Your task to perform on an android device: Do I have any events today? Image 0: 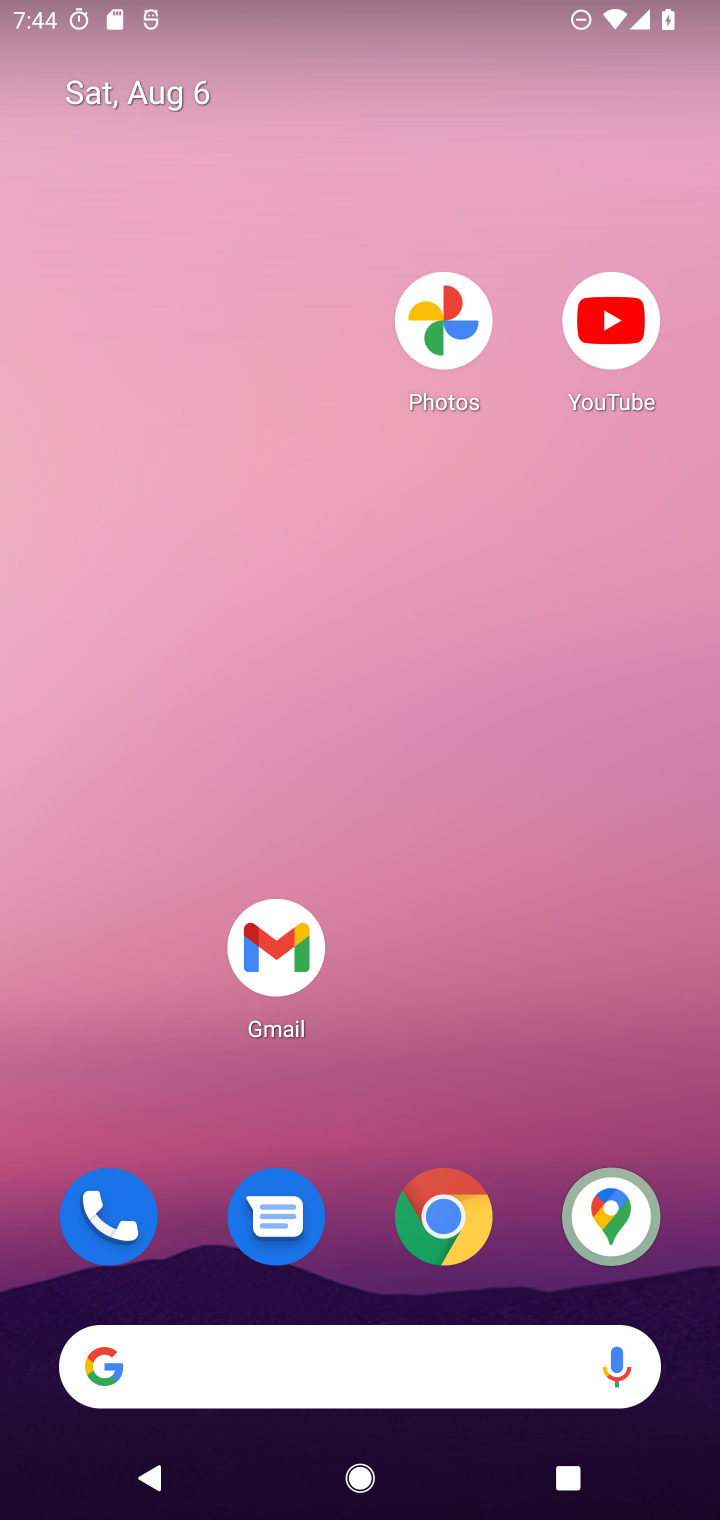
Step 0: drag from (587, 696) to (672, 183)
Your task to perform on an android device: Do I have any events today? Image 1: 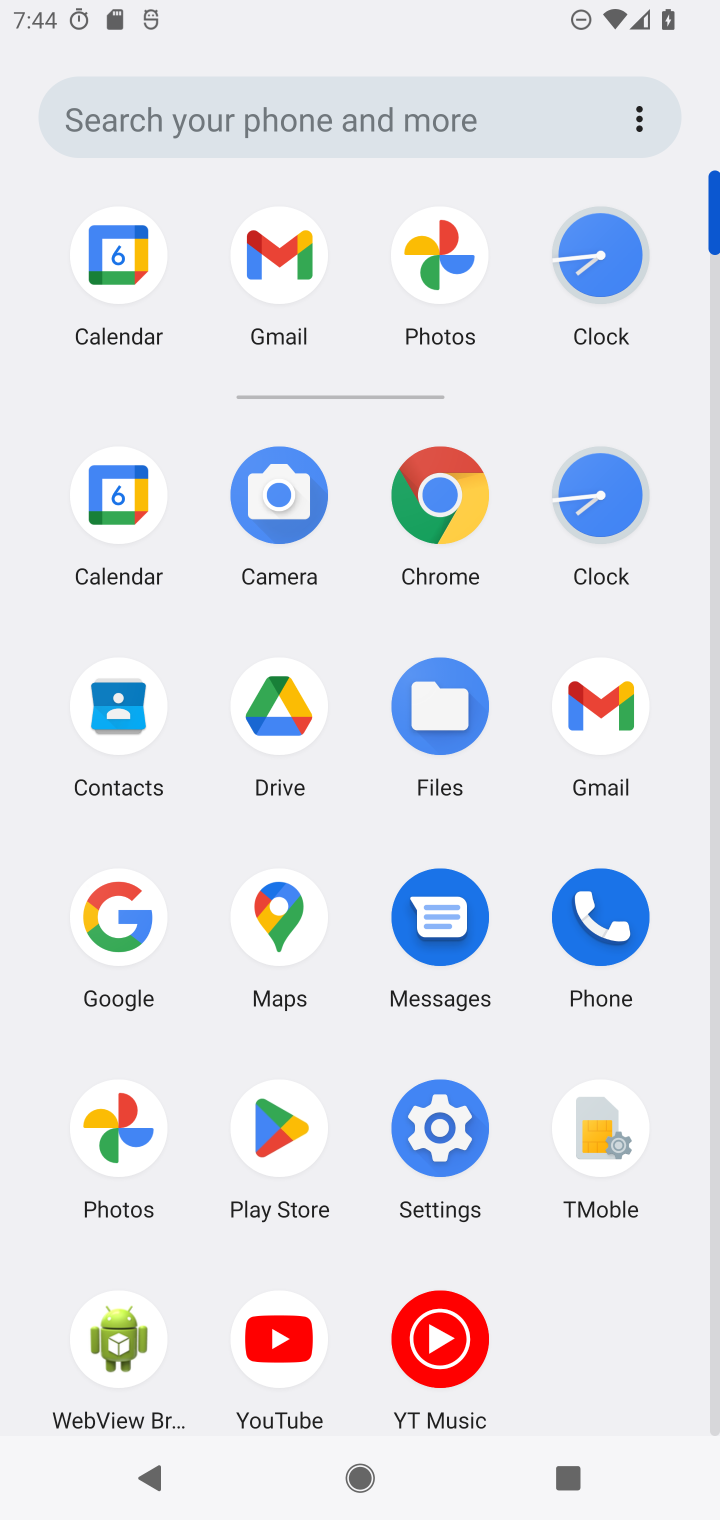
Step 1: click (138, 472)
Your task to perform on an android device: Do I have any events today? Image 2: 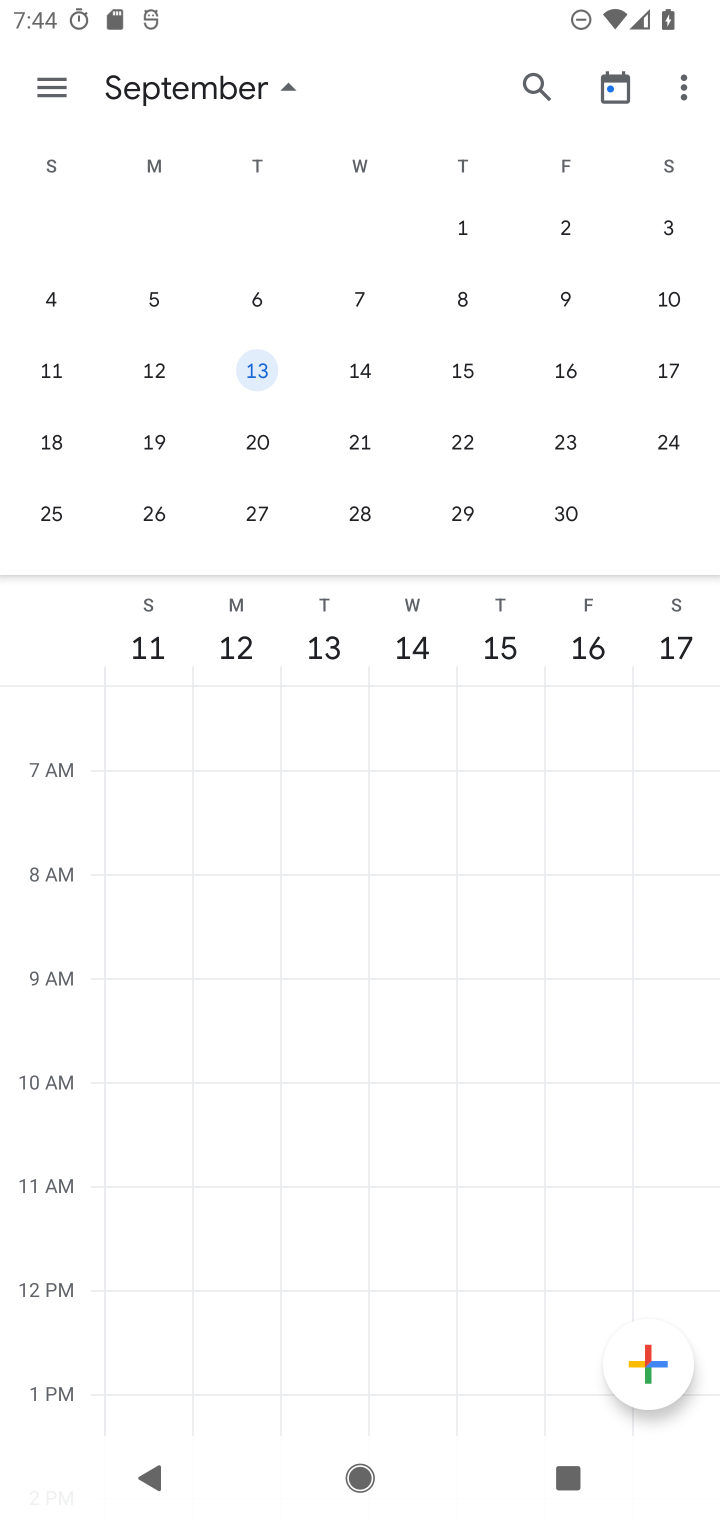
Step 2: drag from (102, 386) to (642, 388)
Your task to perform on an android device: Do I have any events today? Image 3: 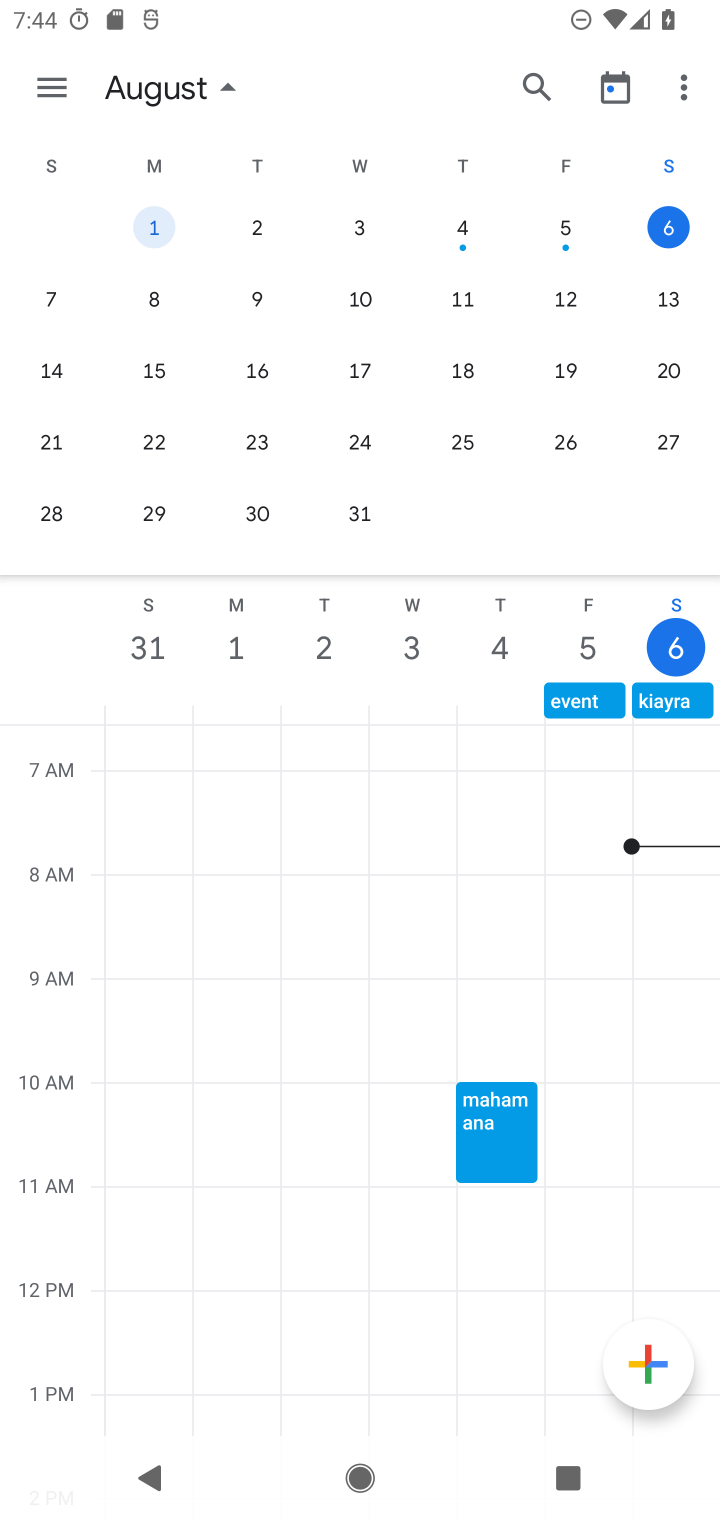
Step 3: click (652, 219)
Your task to perform on an android device: Do I have any events today? Image 4: 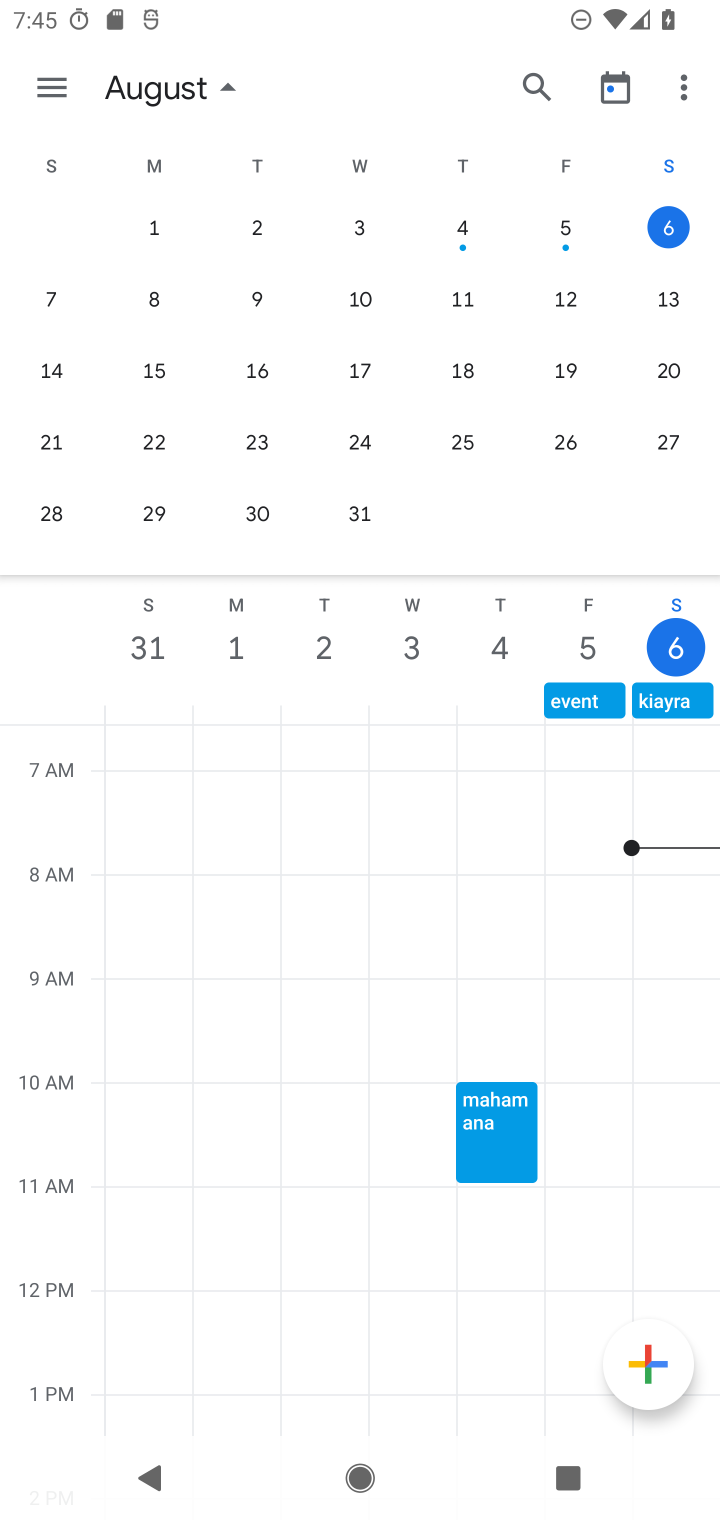
Step 4: click (674, 224)
Your task to perform on an android device: Do I have any events today? Image 5: 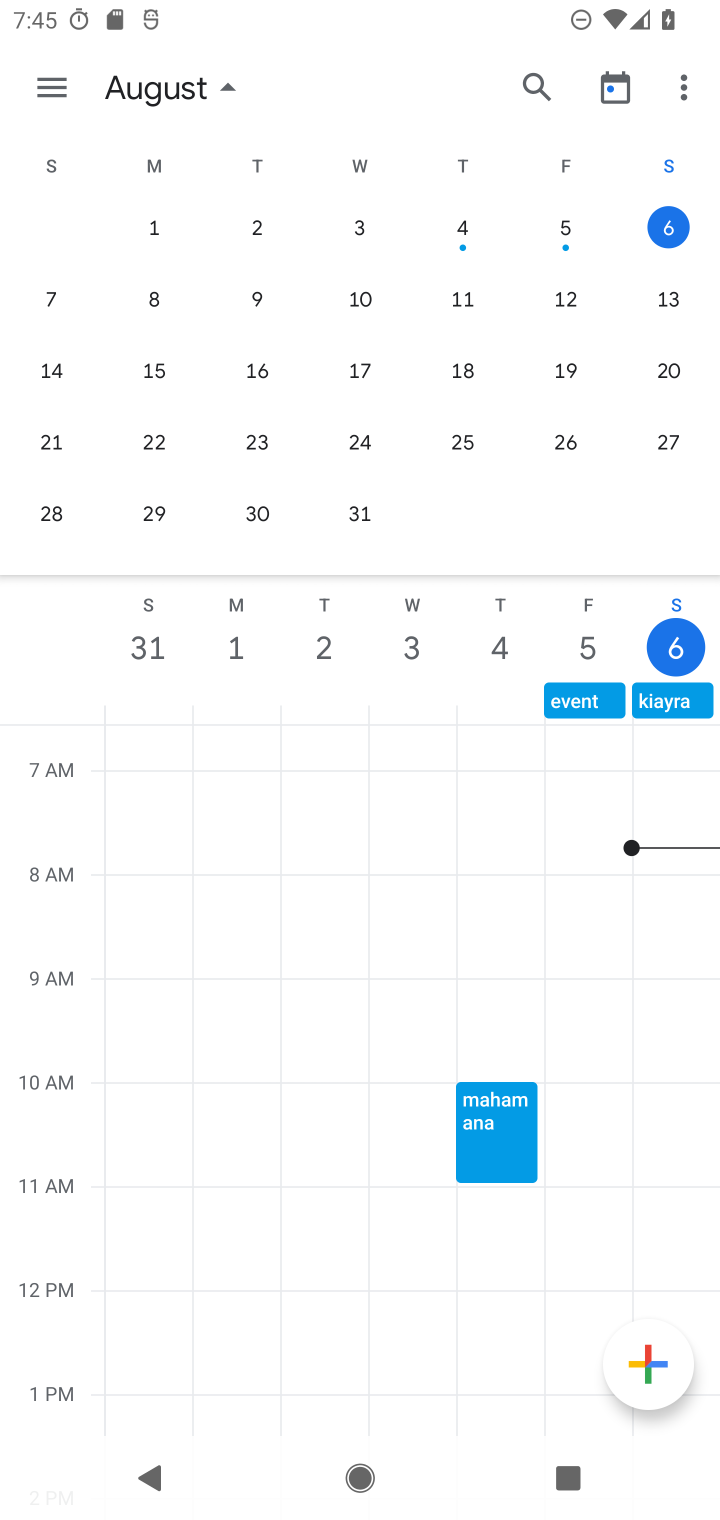
Step 5: click (663, 642)
Your task to perform on an android device: Do I have any events today? Image 6: 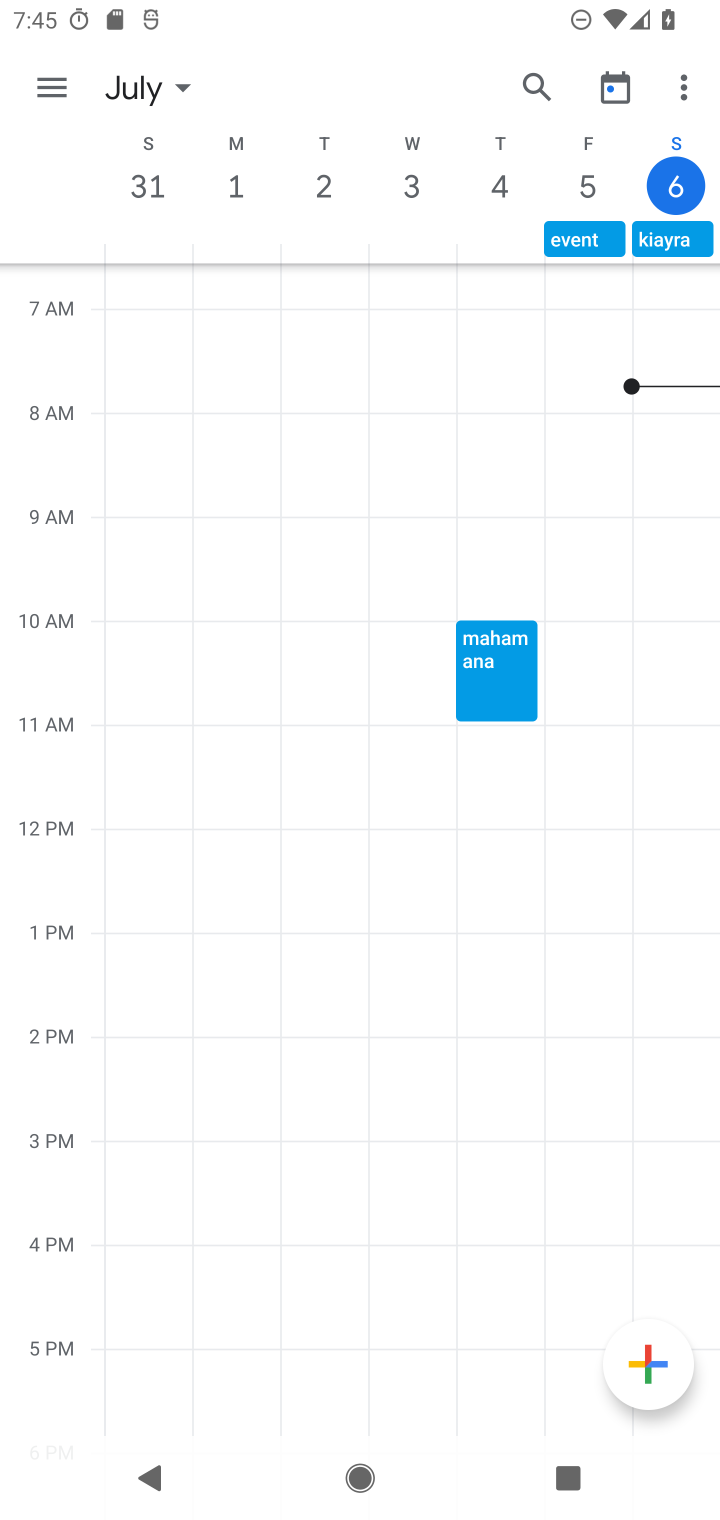
Step 6: click (665, 642)
Your task to perform on an android device: Do I have any events today? Image 7: 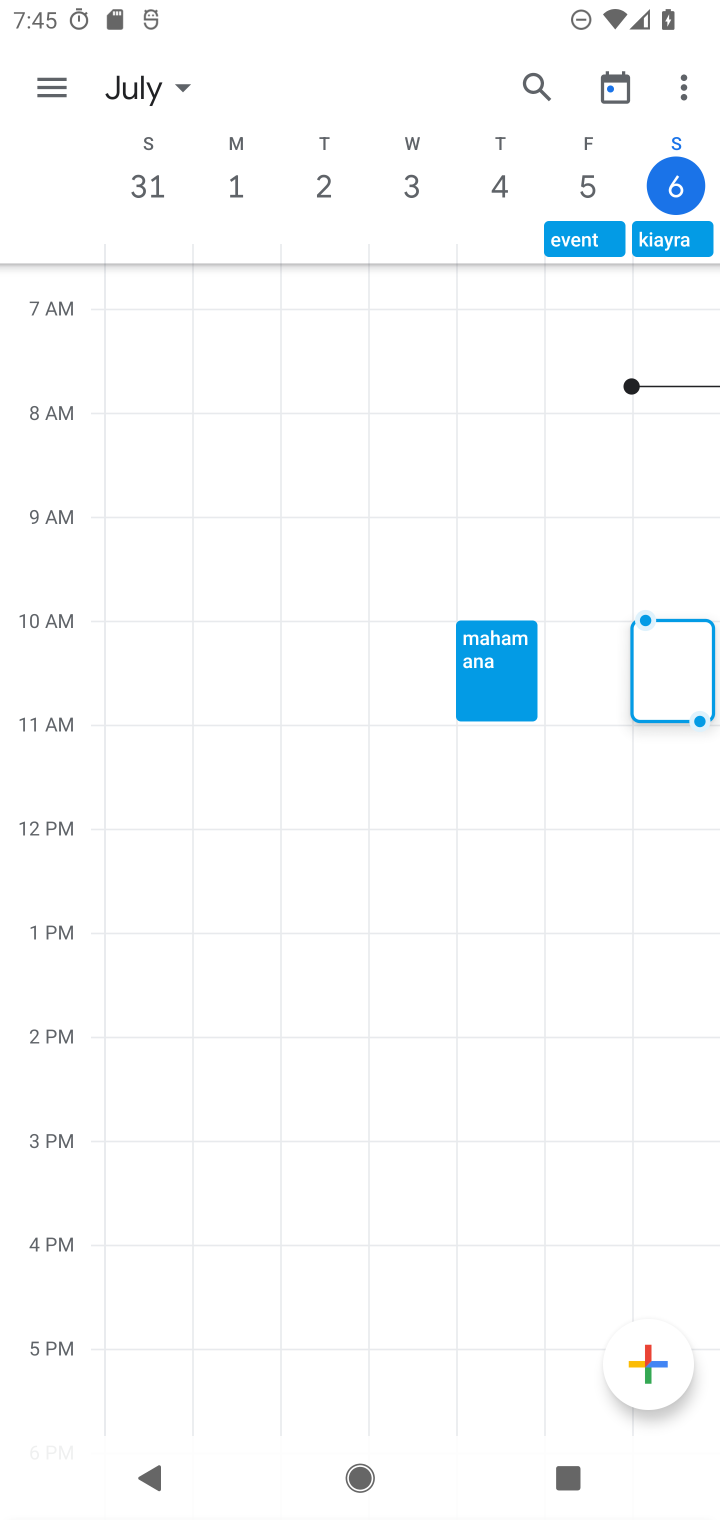
Step 7: click (692, 153)
Your task to perform on an android device: Do I have any events today? Image 8: 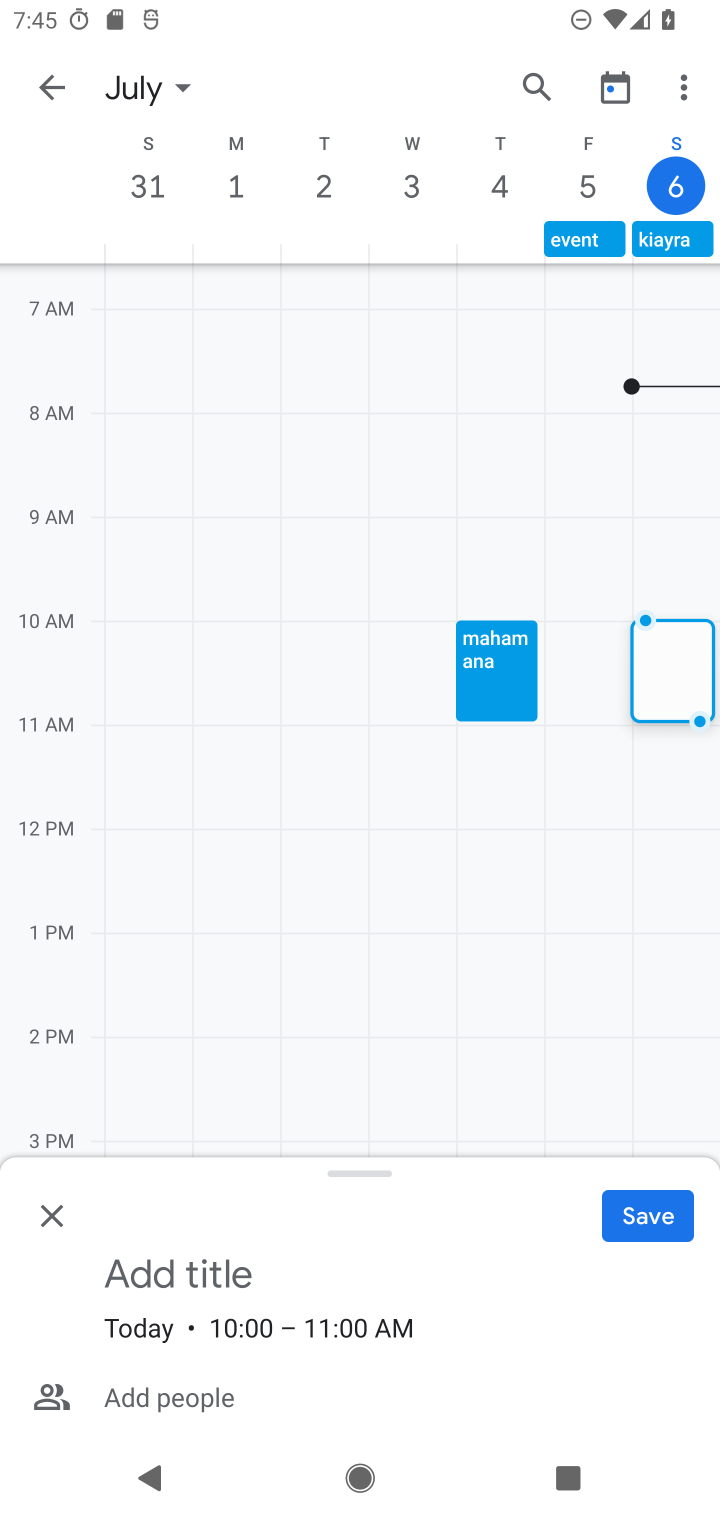
Step 8: click (692, 156)
Your task to perform on an android device: Do I have any events today? Image 9: 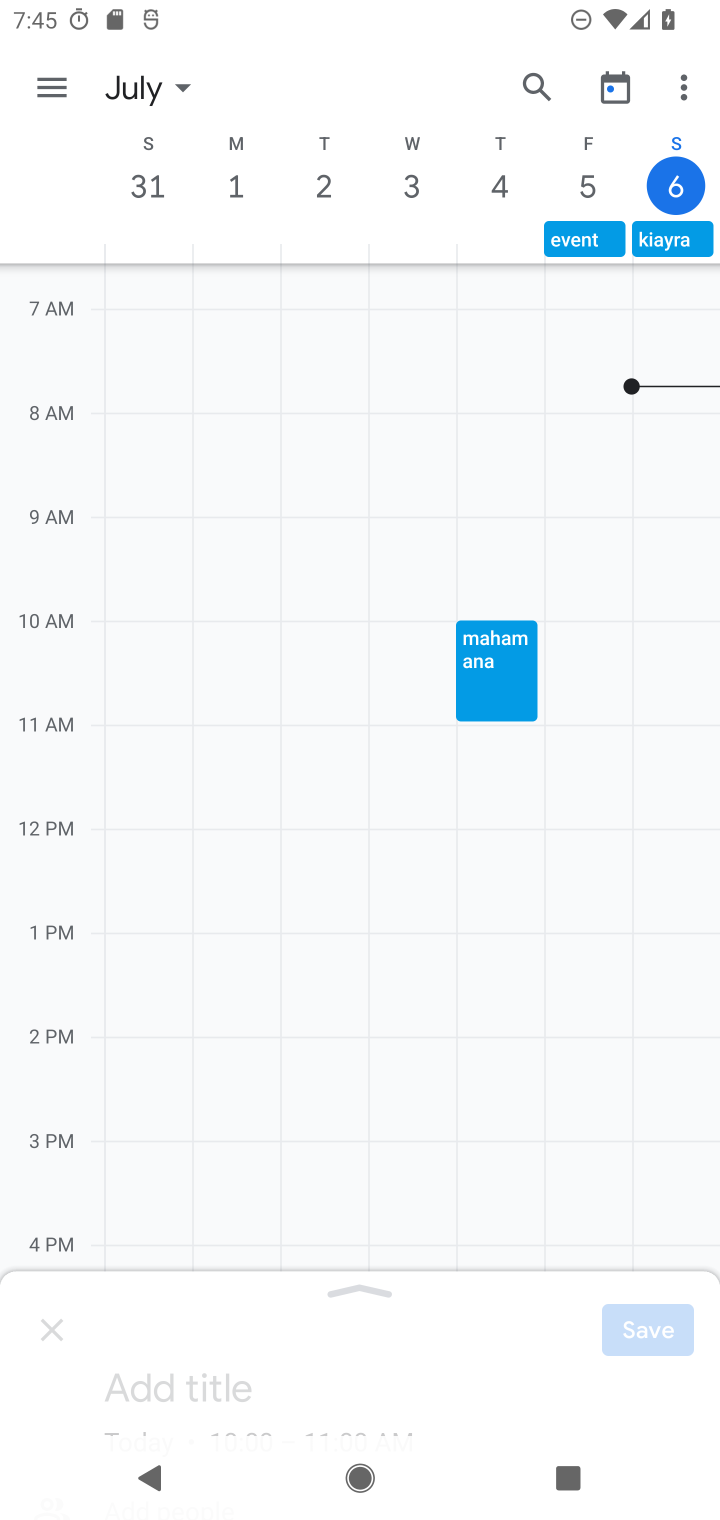
Step 9: click (684, 166)
Your task to perform on an android device: Do I have any events today? Image 10: 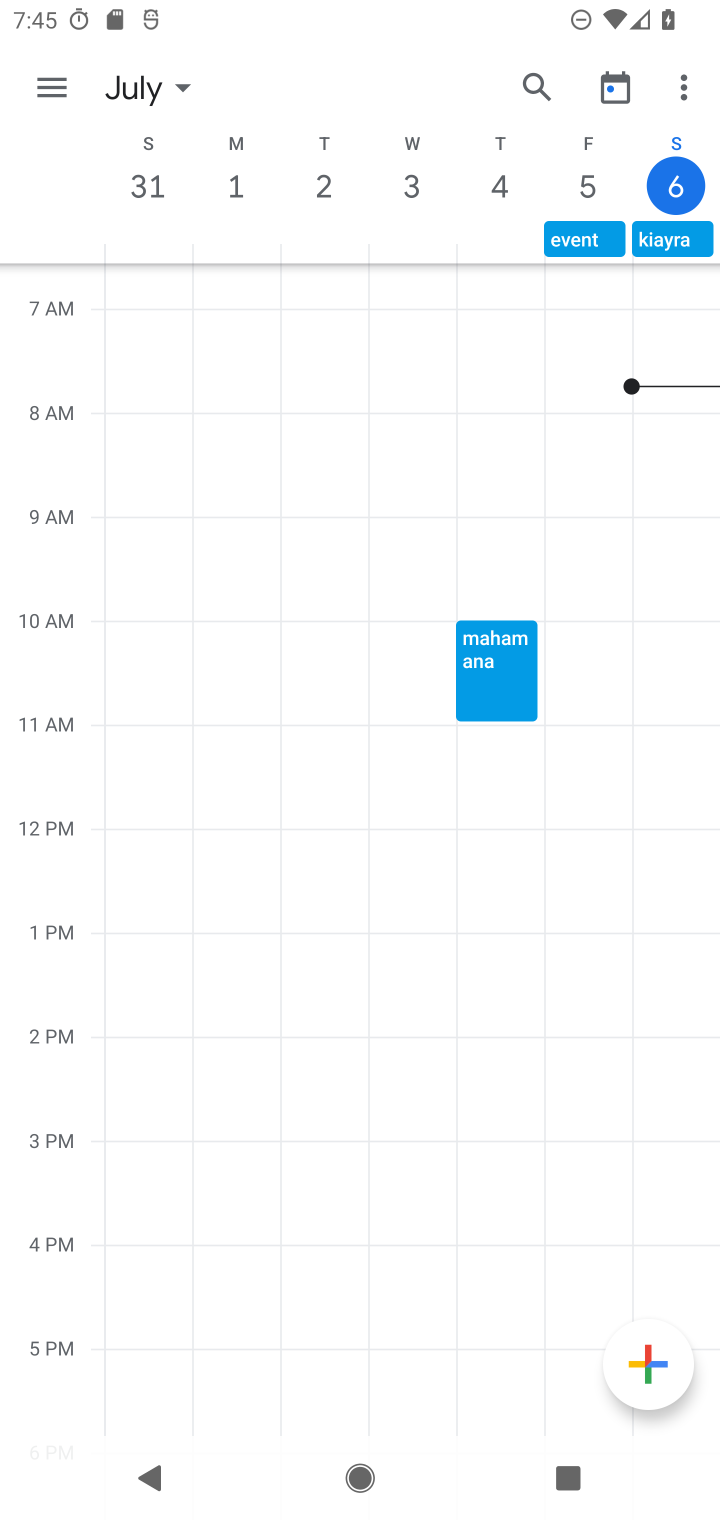
Step 10: click (684, 166)
Your task to perform on an android device: Do I have any events today? Image 11: 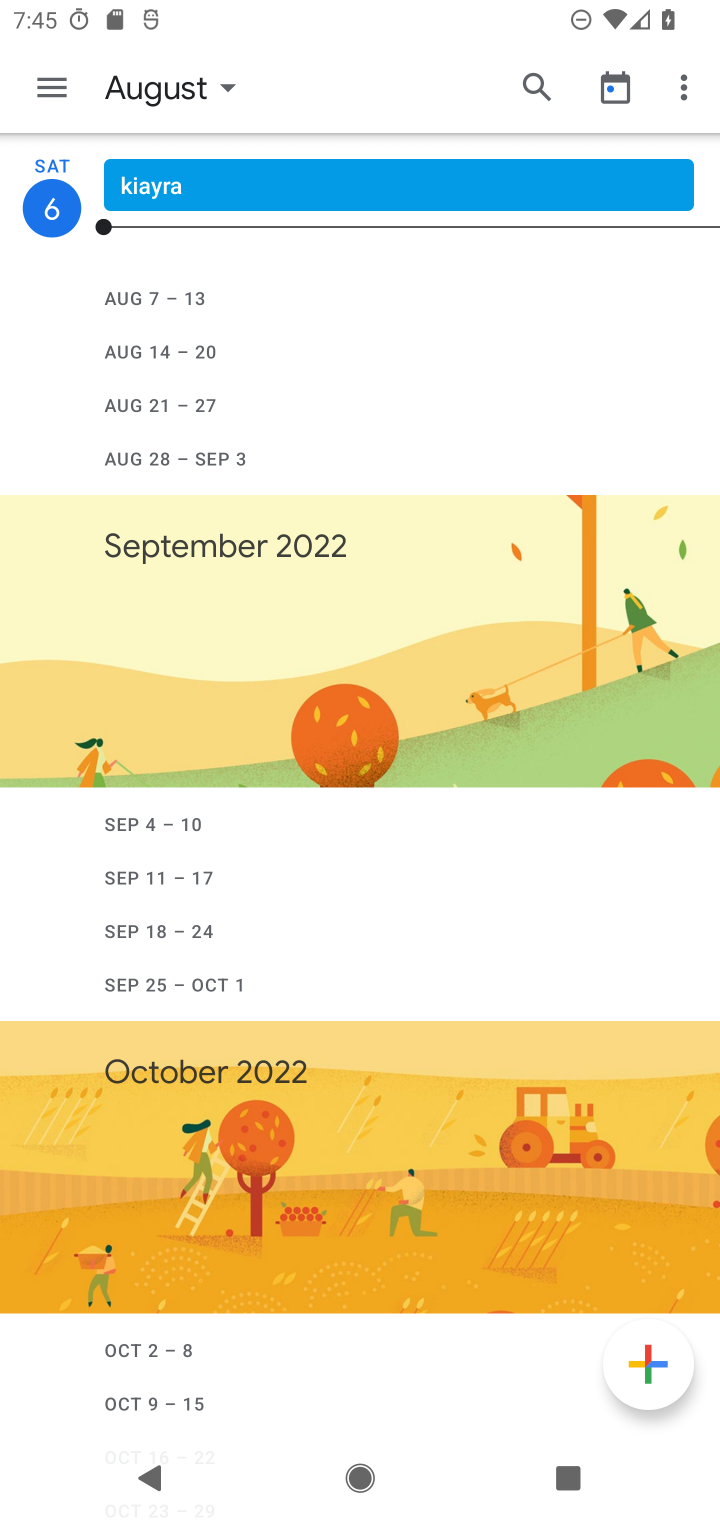
Step 11: task complete